Your task to perform on an android device: find which apps use the phone's location Image 0: 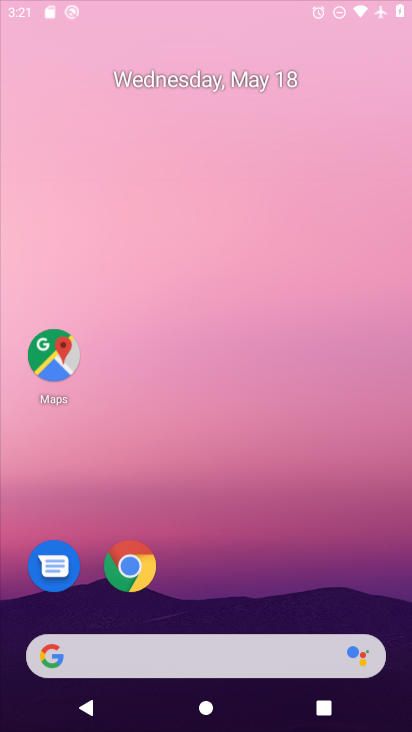
Step 0: click (236, 189)
Your task to perform on an android device: find which apps use the phone's location Image 1: 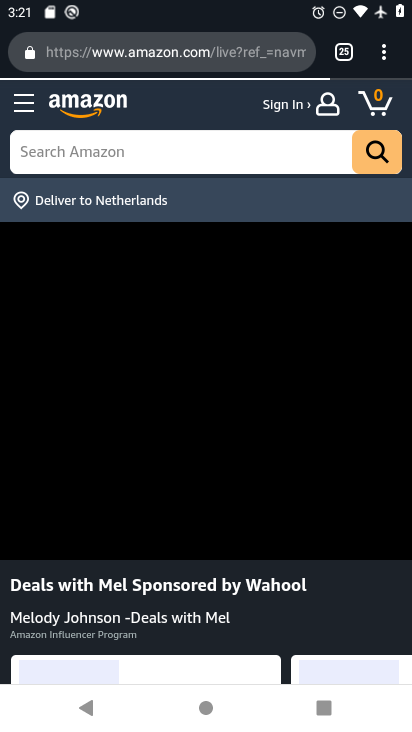
Step 1: press home button
Your task to perform on an android device: find which apps use the phone's location Image 2: 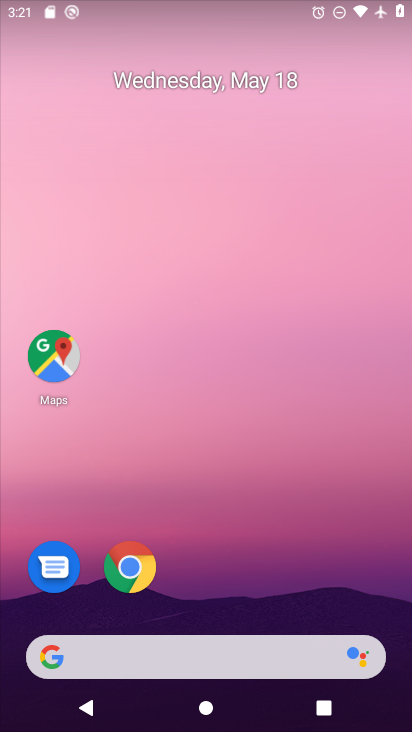
Step 2: drag from (278, 602) to (291, 240)
Your task to perform on an android device: find which apps use the phone's location Image 3: 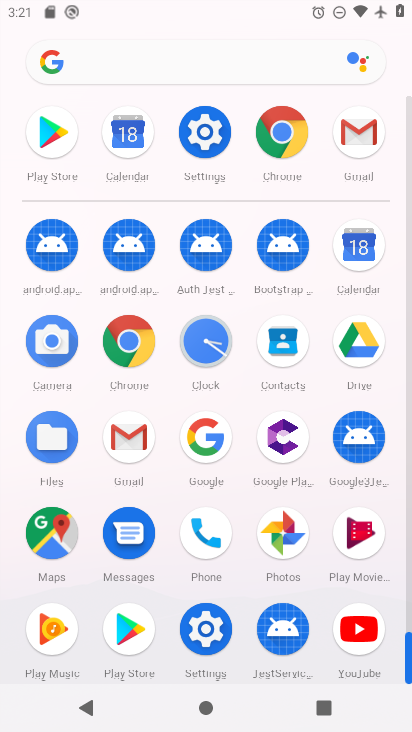
Step 3: click (197, 126)
Your task to perform on an android device: find which apps use the phone's location Image 4: 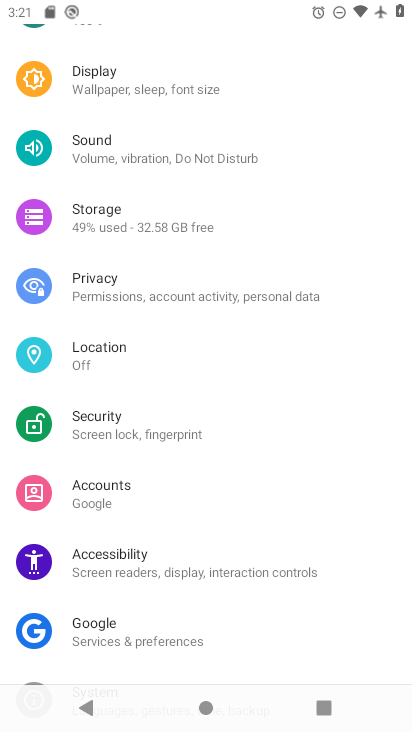
Step 4: click (129, 364)
Your task to perform on an android device: find which apps use the phone's location Image 5: 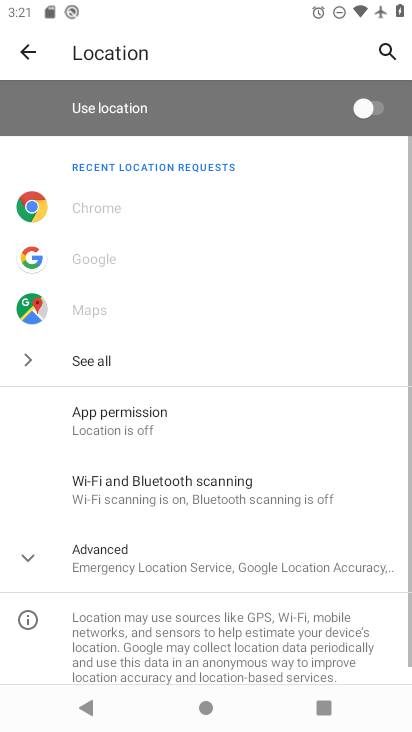
Step 5: task complete